Your task to perform on an android device: change the clock display to digital Image 0: 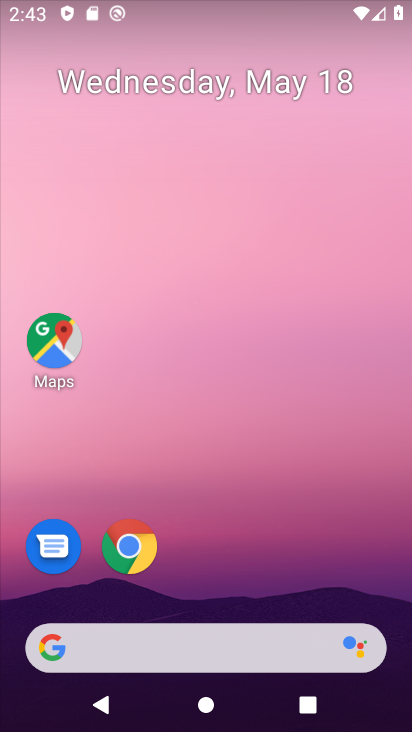
Step 0: drag from (231, 722) to (209, 263)
Your task to perform on an android device: change the clock display to digital Image 1: 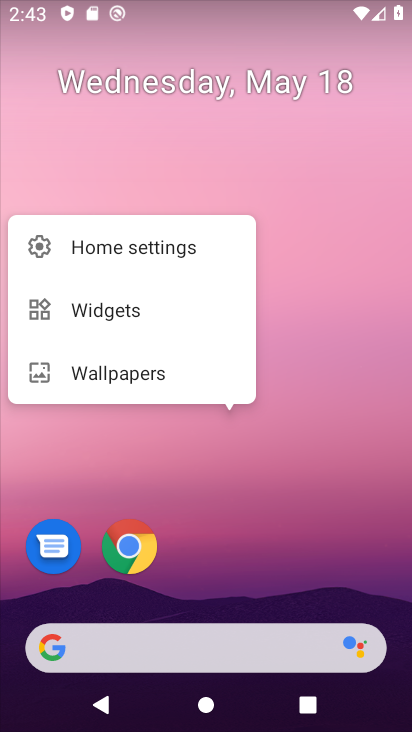
Step 1: click (242, 488)
Your task to perform on an android device: change the clock display to digital Image 2: 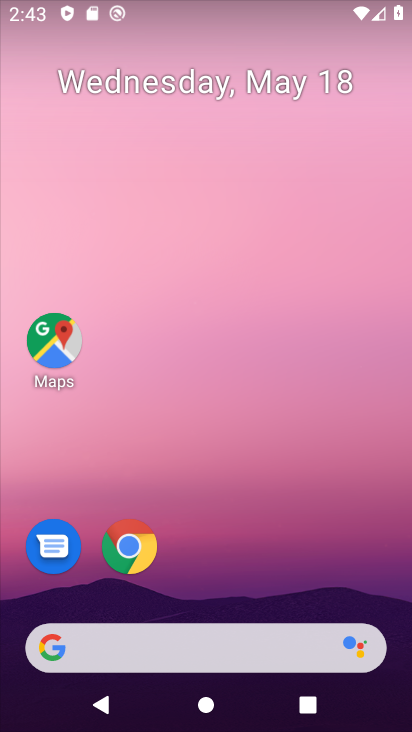
Step 2: drag from (217, 730) to (225, 222)
Your task to perform on an android device: change the clock display to digital Image 3: 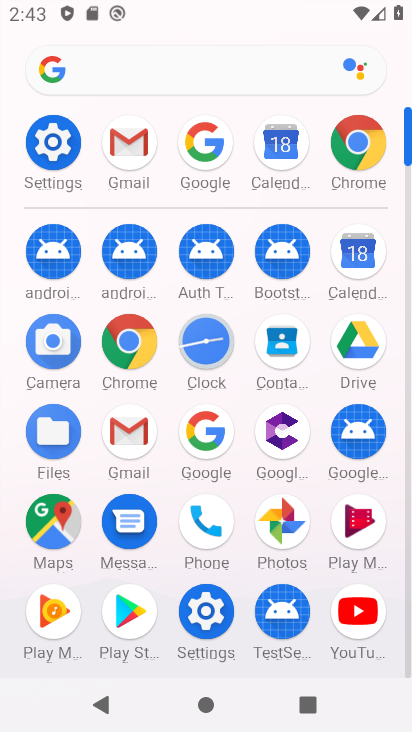
Step 3: click (214, 348)
Your task to perform on an android device: change the clock display to digital Image 4: 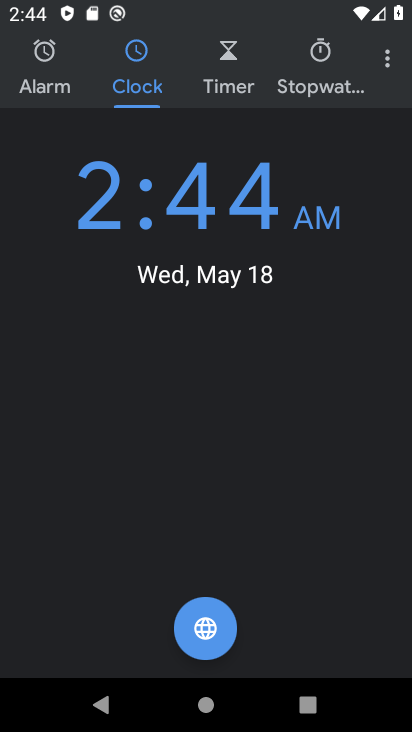
Step 4: click (387, 64)
Your task to perform on an android device: change the clock display to digital Image 5: 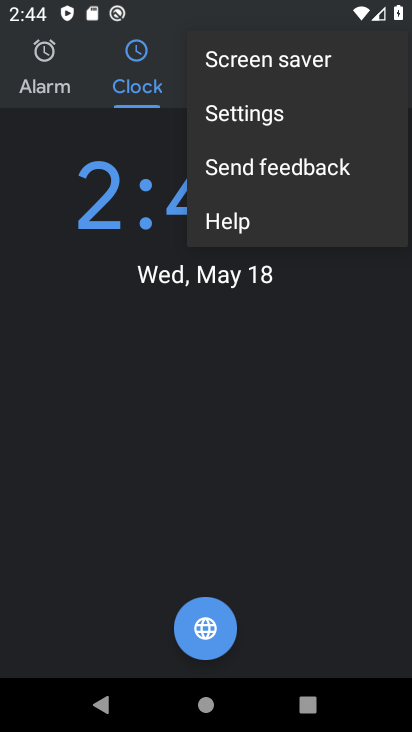
Step 5: click (247, 117)
Your task to perform on an android device: change the clock display to digital Image 6: 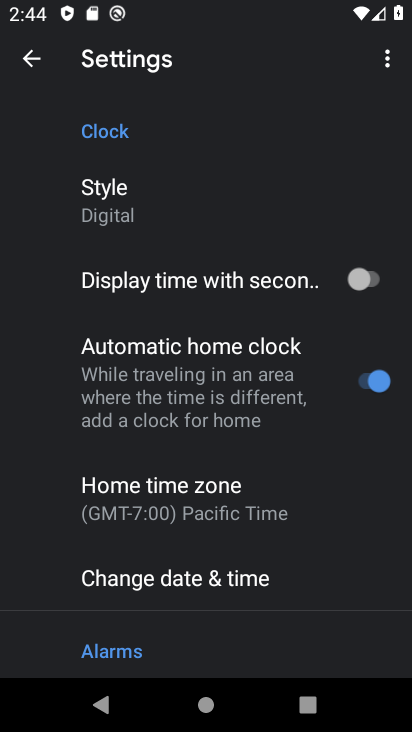
Step 6: task complete